Your task to perform on an android device: toggle priority inbox in the gmail app Image 0: 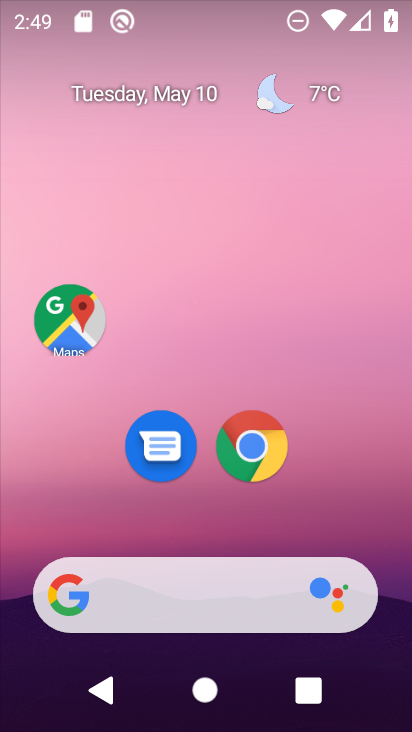
Step 0: drag from (320, 463) to (252, 94)
Your task to perform on an android device: toggle priority inbox in the gmail app Image 1: 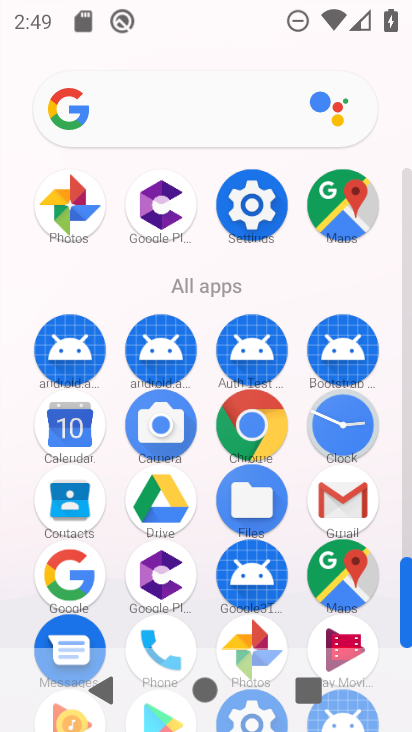
Step 1: click (343, 509)
Your task to perform on an android device: toggle priority inbox in the gmail app Image 2: 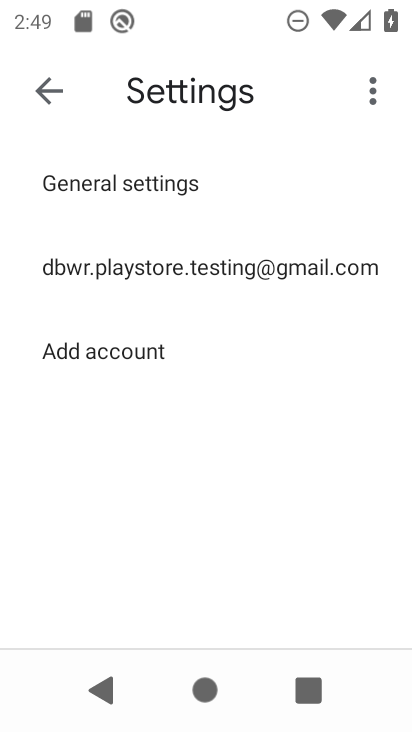
Step 2: click (179, 270)
Your task to perform on an android device: toggle priority inbox in the gmail app Image 3: 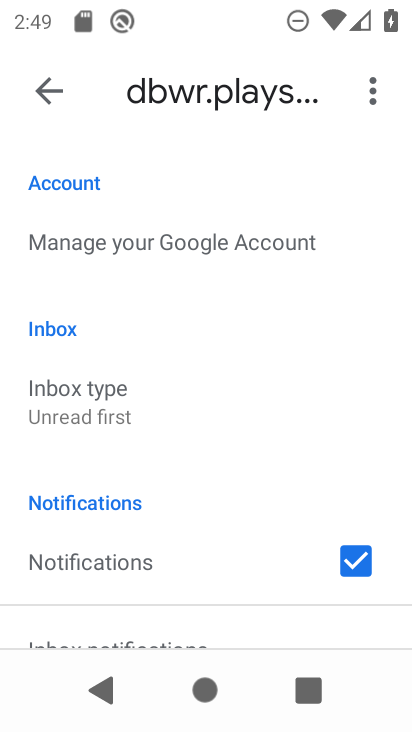
Step 3: click (178, 382)
Your task to perform on an android device: toggle priority inbox in the gmail app Image 4: 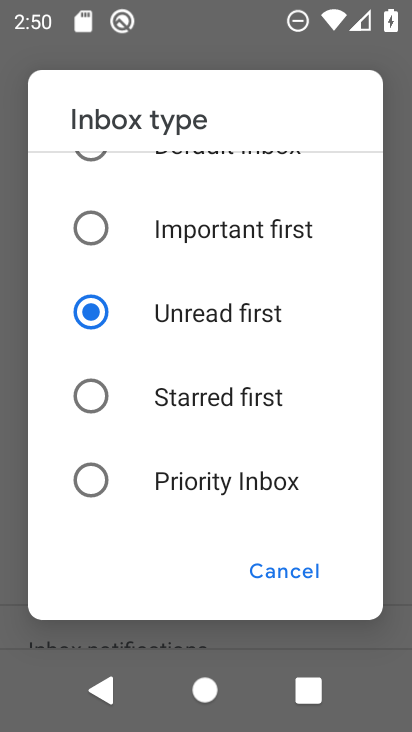
Step 4: click (185, 480)
Your task to perform on an android device: toggle priority inbox in the gmail app Image 5: 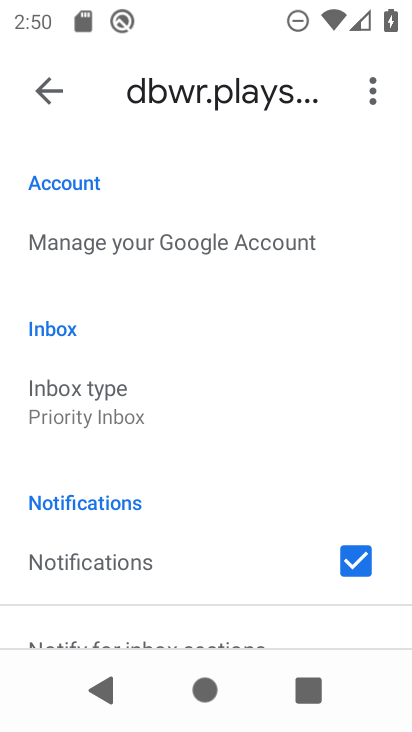
Step 5: task complete